Your task to perform on an android device: open app "Clock" (install if not already installed) Image 0: 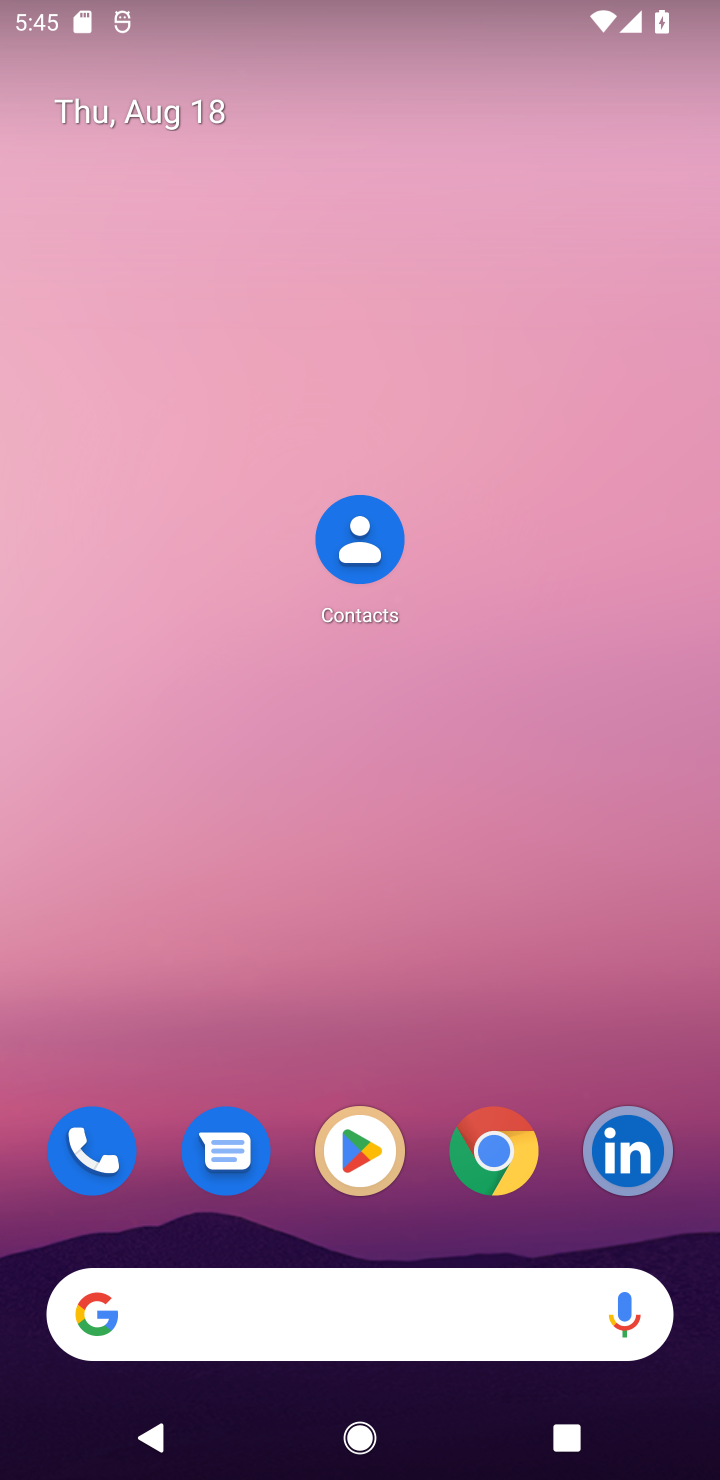
Step 0: drag from (312, 1246) to (462, 312)
Your task to perform on an android device: open app "Clock" (install if not already installed) Image 1: 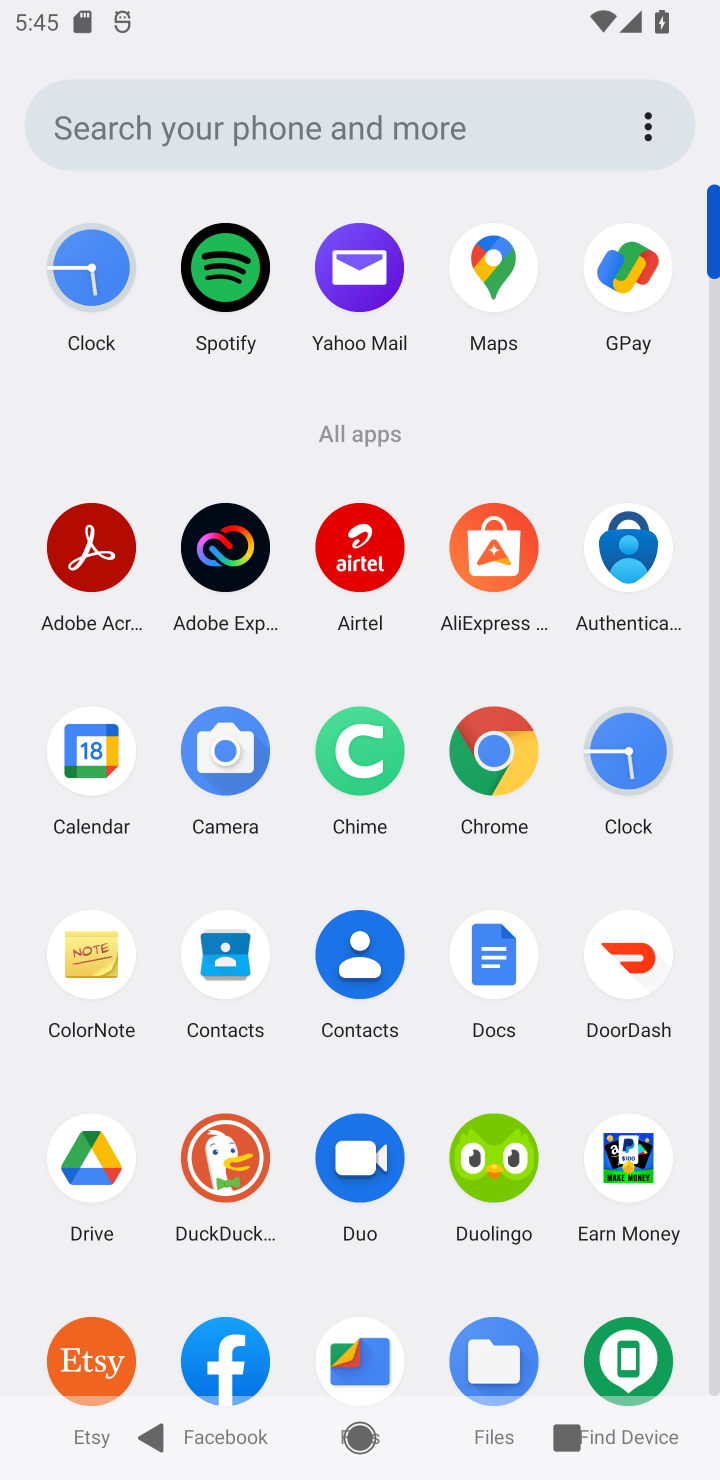
Step 1: click (91, 265)
Your task to perform on an android device: open app "Clock" (install if not already installed) Image 2: 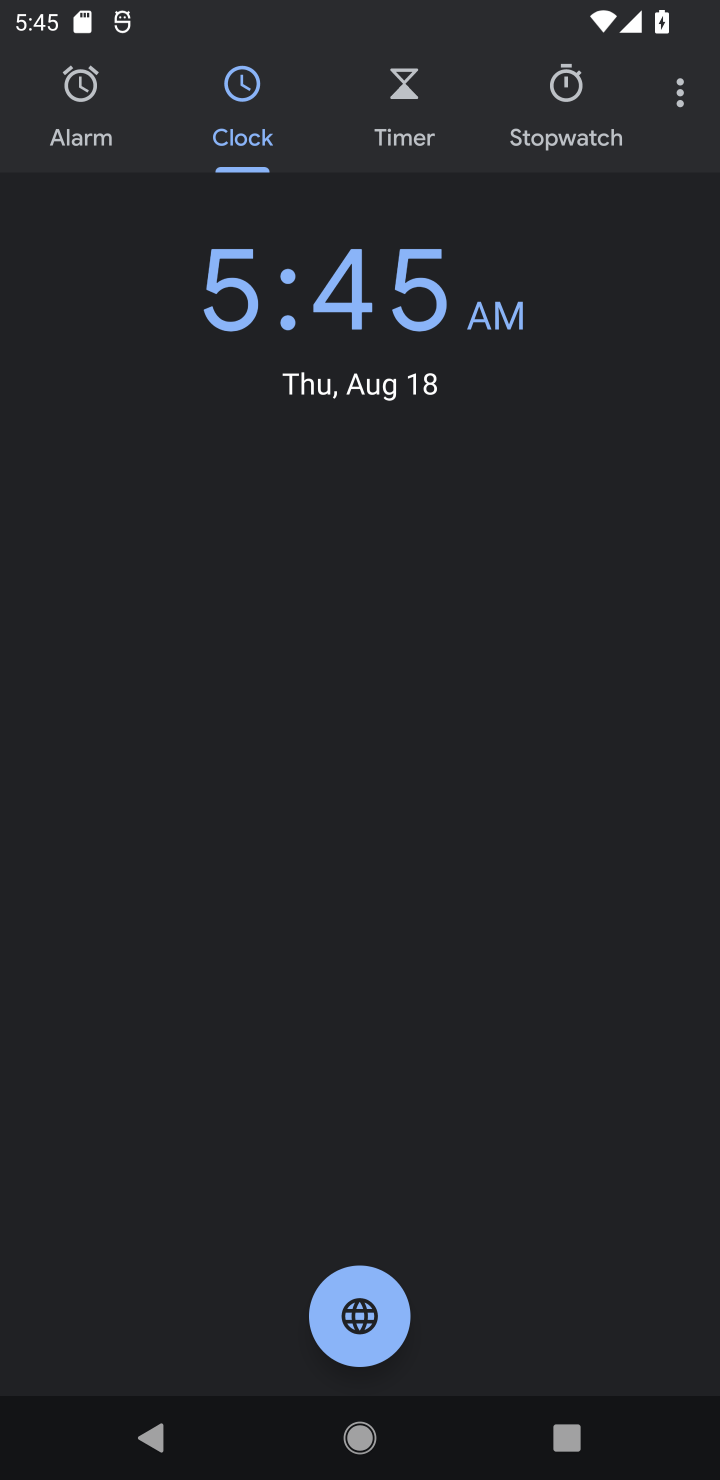
Step 2: task complete